Your task to perform on an android device: View the shopping cart on amazon. Search for "razer blade" on amazon, select the first entry, add it to the cart, then select checkout. Image 0: 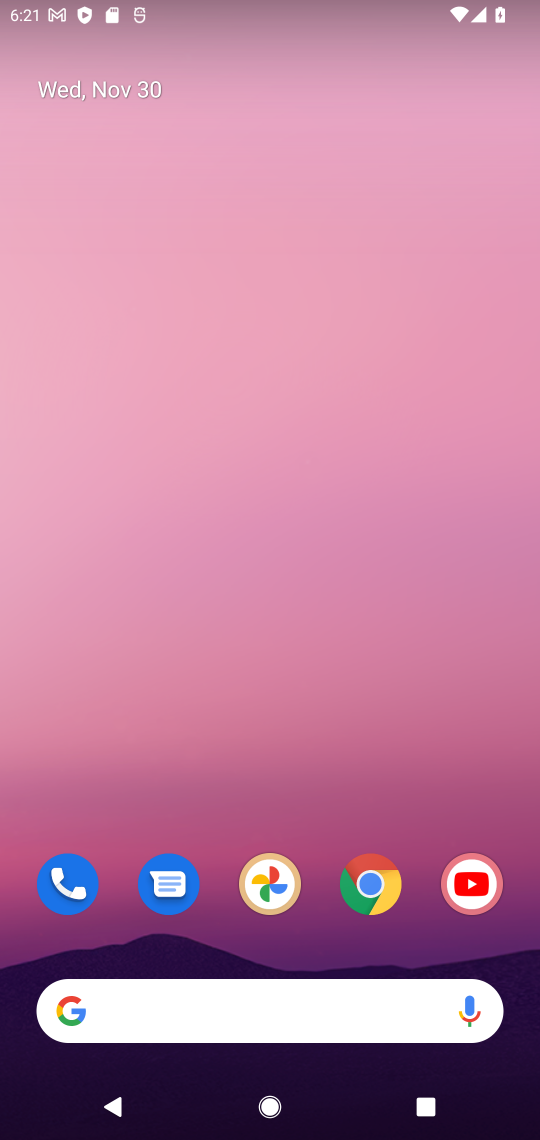
Step 0: click (374, 896)
Your task to perform on an android device: View the shopping cart on amazon. Search for "razer blade" on amazon, select the first entry, add it to the cart, then select checkout. Image 1: 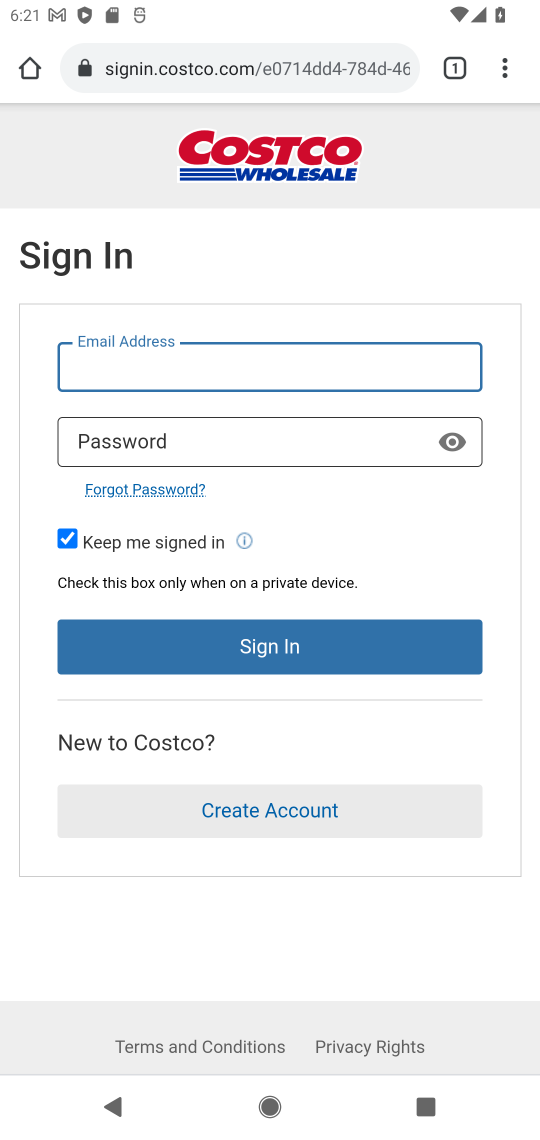
Step 1: click (207, 72)
Your task to perform on an android device: View the shopping cart on amazon. Search for "razer blade" on amazon, select the first entry, add it to the cart, then select checkout. Image 2: 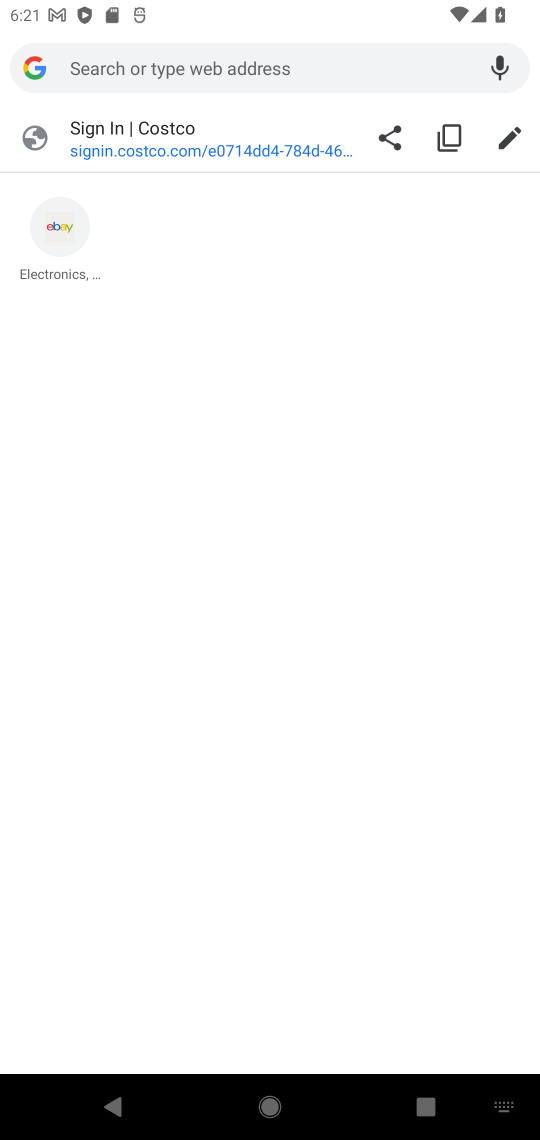
Step 2: type "amazon.com"
Your task to perform on an android device: View the shopping cart on amazon. Search for "razer blade" on amazon, select the first entry, add it to the cart, then select checkout. Image 3: 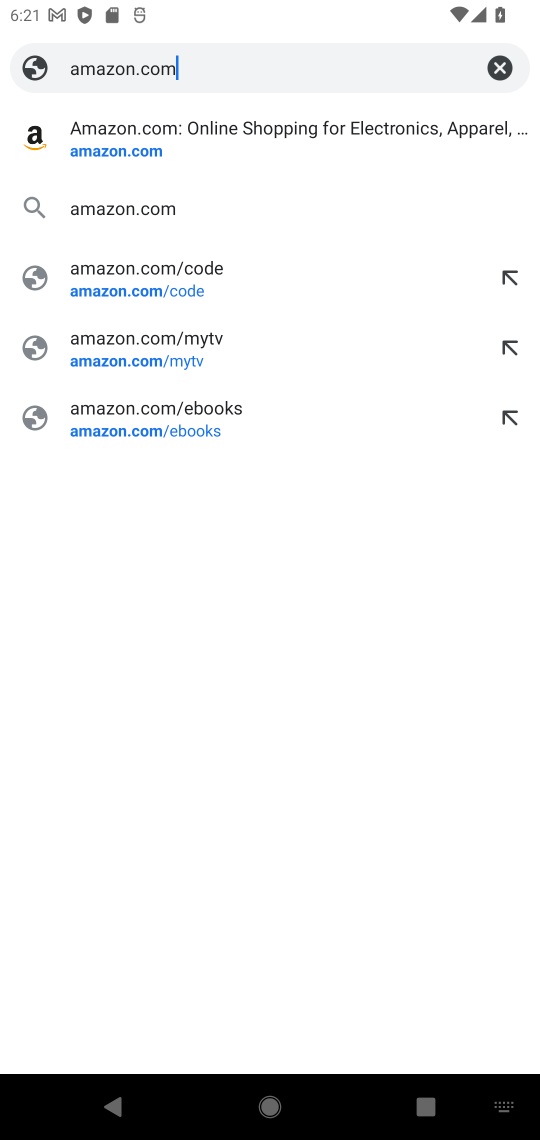
Step 3: click (98, 145)
Your task to perform on an android device: View the shopping cart on amazon. Search for "razer blade" on amazon, select the first entry, add it to the cart, then select checkout. Image 4: 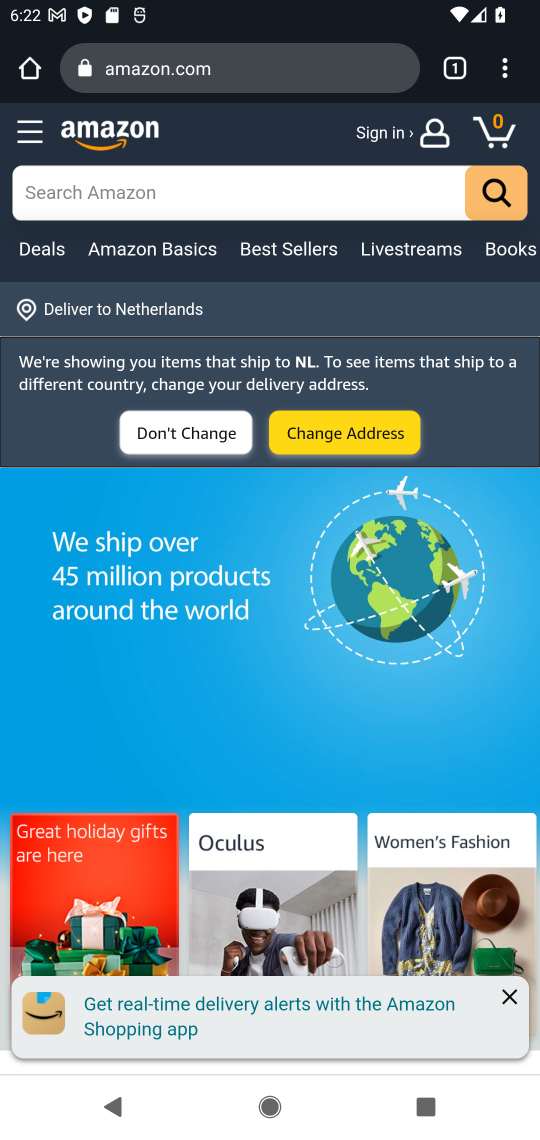
Step 4: click (487, 129)
Your task to perform on an android device: View the shopping cart on amazon. Search for "razer blade" on amazon, select the first entry, add it to the cart, then select checkout. Image 5: 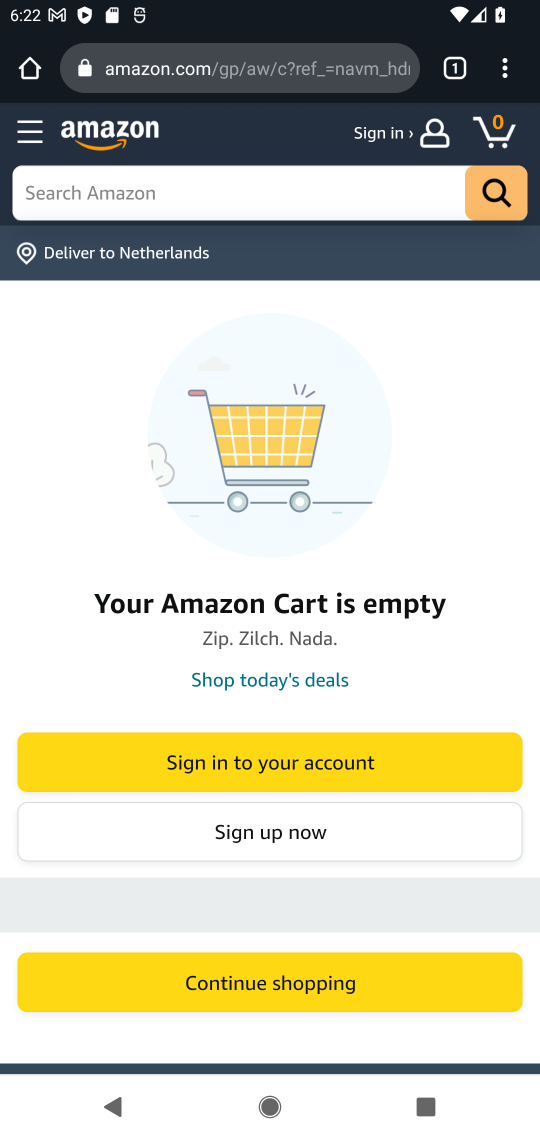
Step 5: click (55, 203)
Your task to perform on an android device: View the shopping cart on amazon. Search for "razer blade" on amazon, select the first entry, add it to the cart, then select checkout. Image 6: 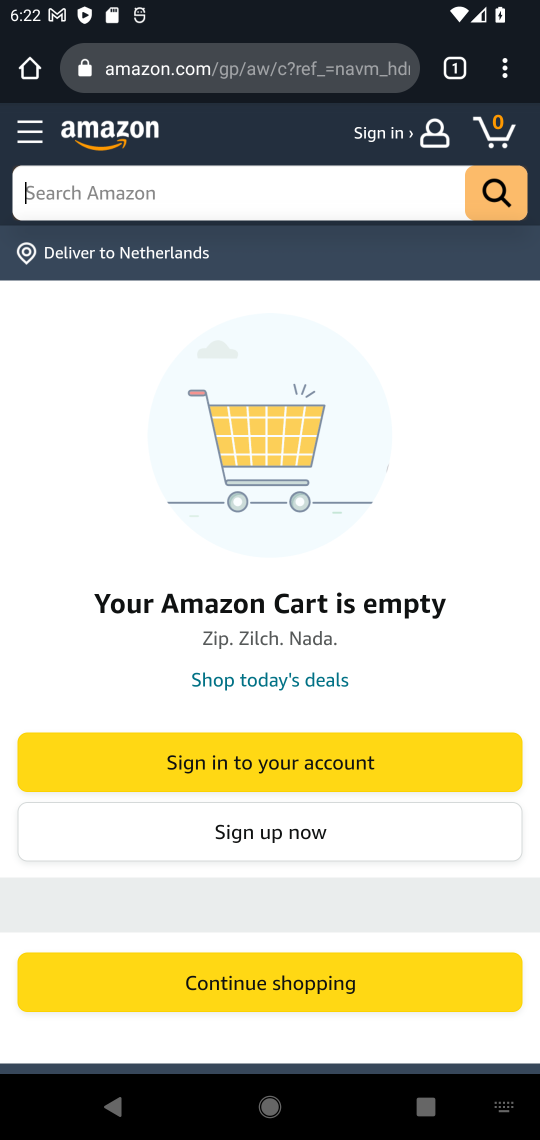
Step 6: type "razer blade"
Your task to perform on an android device: View the shopping cart on amazon. Search for "razer blade" on amazon, select the first entry, add it to the cart, then select checkout. Image 7: 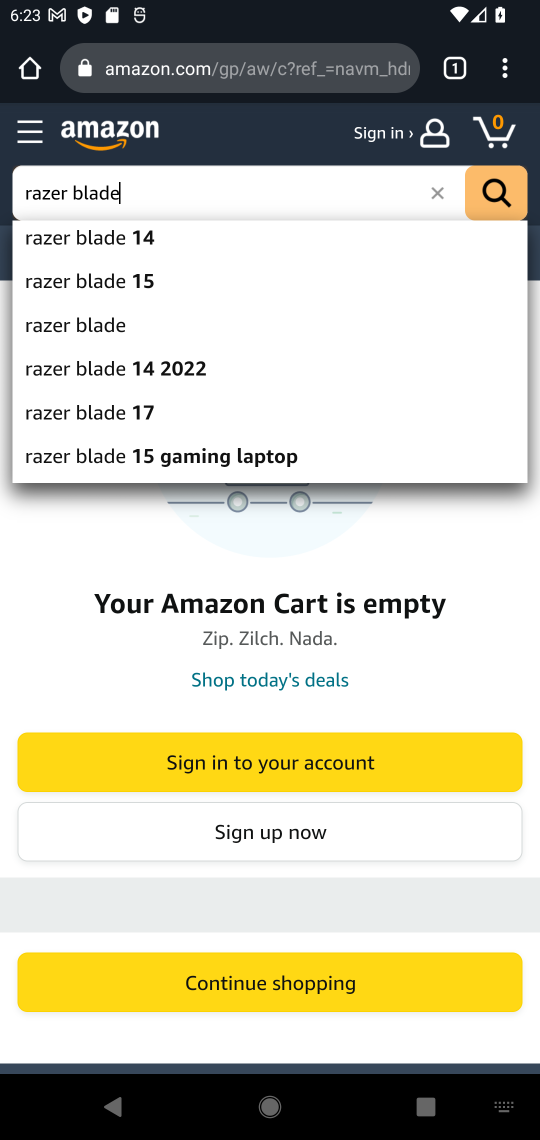
Step 7: click (62, 329)
Your task to perform on an android device: View the shopping cart on amazon. Search for "razer blade" on amazon, select the first entry, add it to the cart, then select checkout. Image 8: 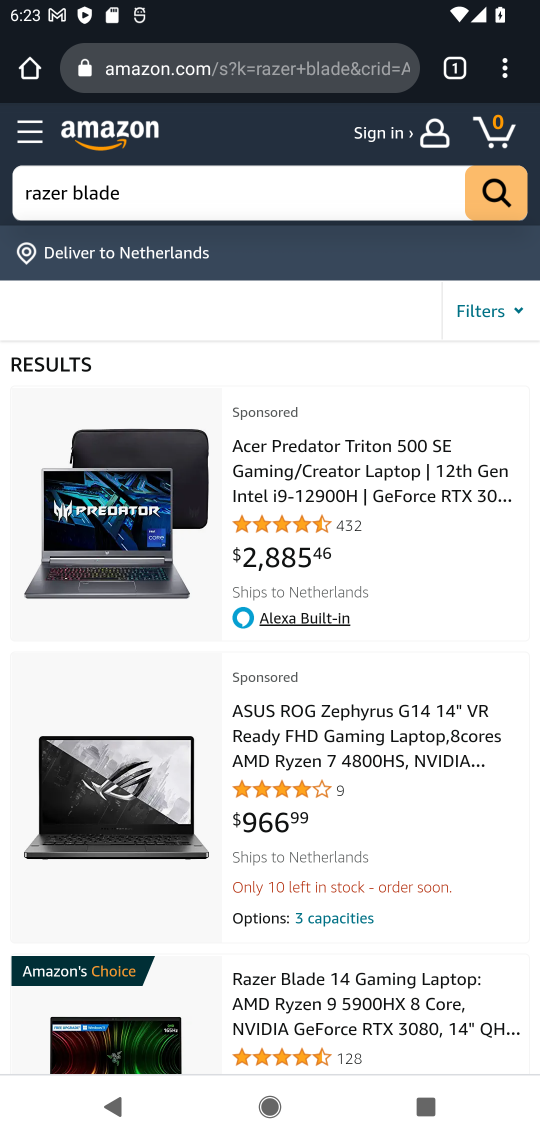
Step 8: task complete